Your task to perform on an android device: Go to wifi settings Image 0: 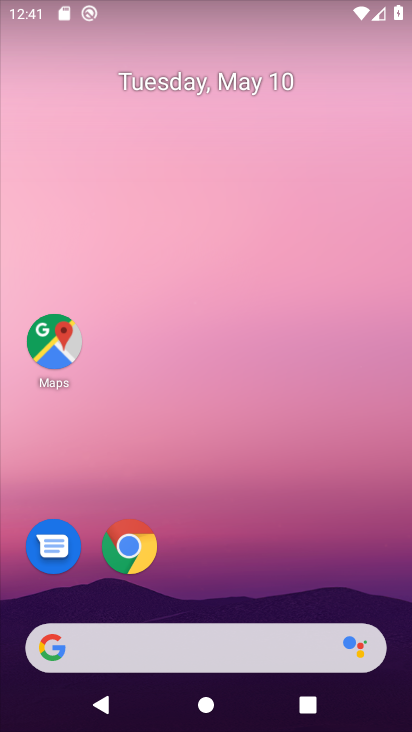
Step 0: drag from (248, 0) to (323, 0)
Your task to perform on an android device: Go to wifi settings Image 1: 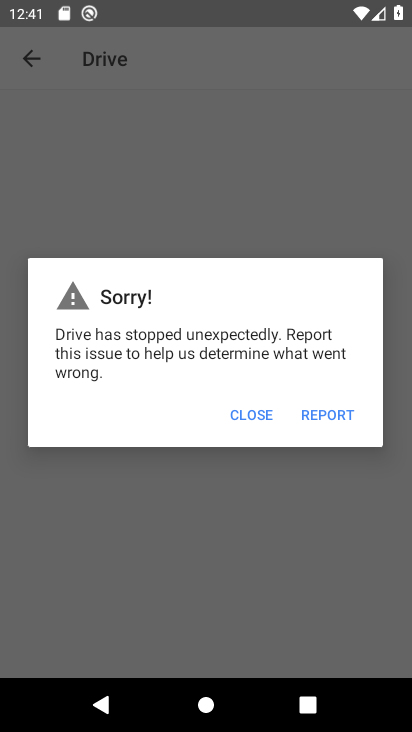
Step 1: press home button
Your task to perform on an android device: Go to wifi settings Image 2: 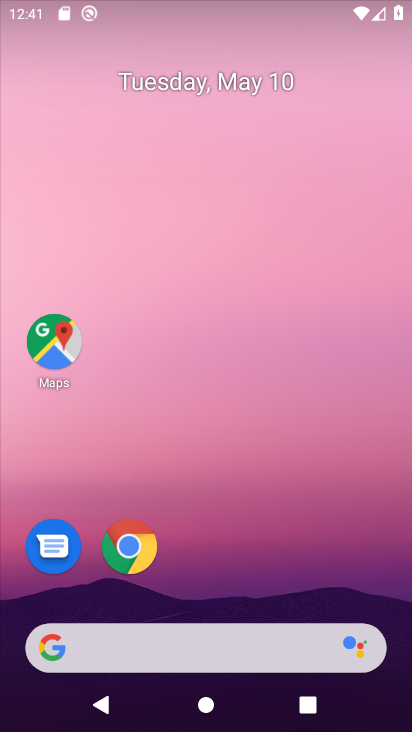
Step 2: drag from (267, 8) to (254, 514)
Your task to perform on an android device: Go to wifi settings Image 3: 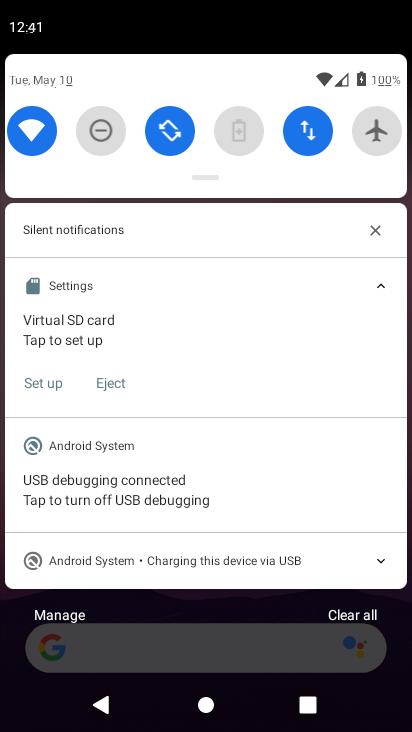
Step 3: click (10, 123)
Your task to perform on an android device: Go to wifi settings Image 4: 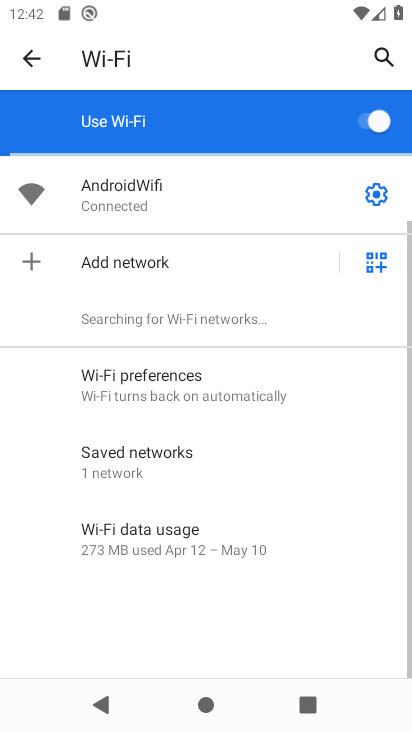
Step 4: task complete